Your task to perform on an android device: star an email in the gmail app Image 0: 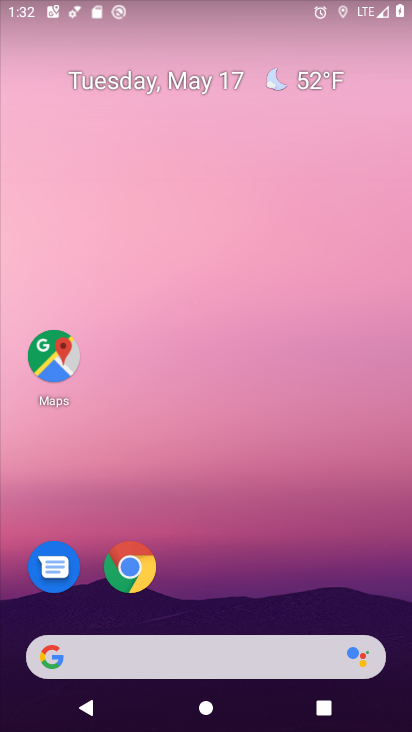
Step 0: drag from (206, 616) to (295, 181)
Your task to perform on an android device: star an email in the gmail app Image 1: 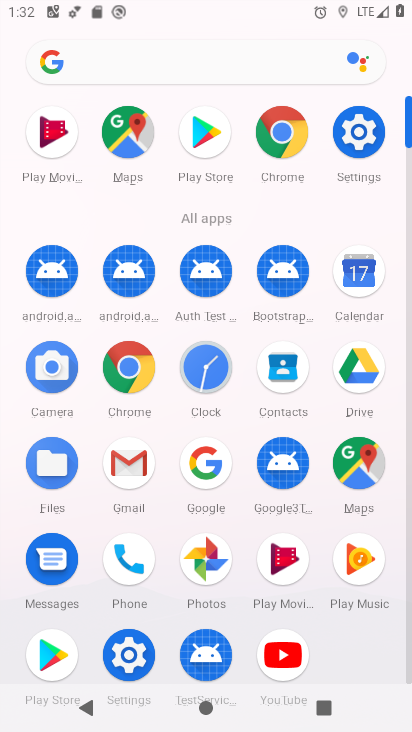
Step 1: click (119, 467)
Your task to perform on an android device: star an email in the gmail app Image 2: 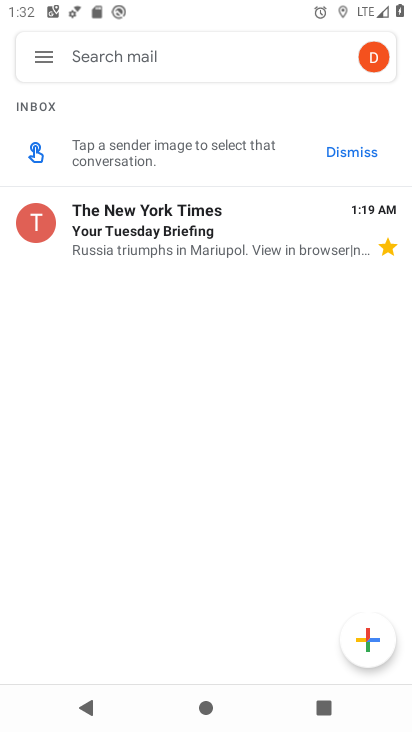
Step 2: task complete